Your task to perform on an android device: open the mobile data screen to see how much data has been used Image 0: 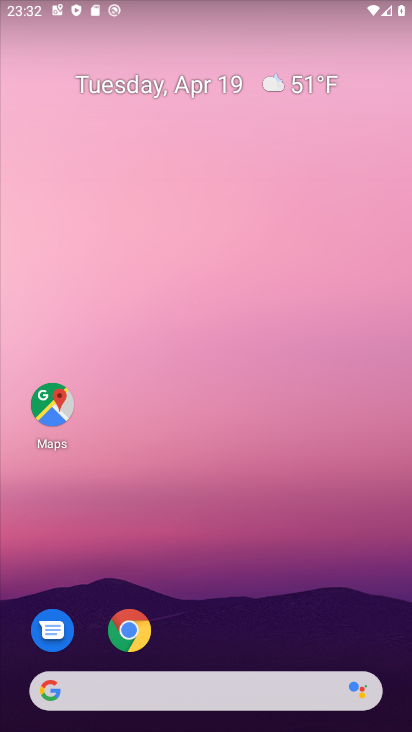
Step 0: drag from (340, 542) to (281, 304)
Your task to perform on an android device: open the mobile data screen to see how much data has been used Image 1: 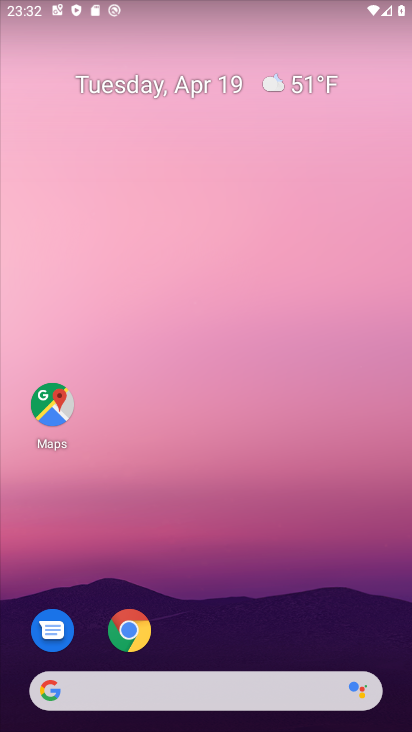
Step 1: drag from (247, 573) to (175, 176)
Your task to perform on an android device: open the mobile data screen to see how much data has been used Image 2: 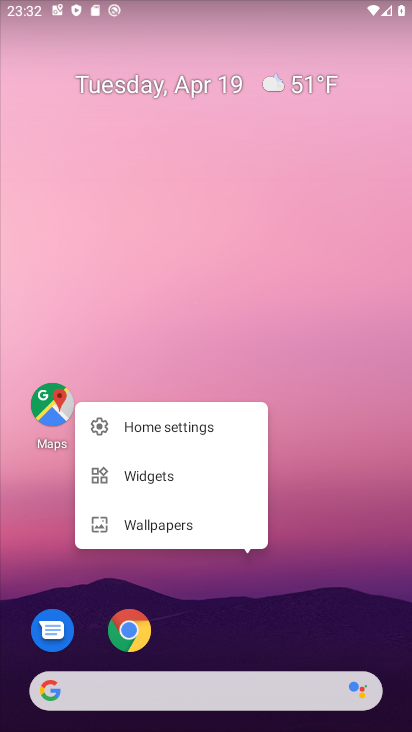
Step 2: drag from (349, 623) to (246, 167)
Your task to perform on an android device: open the mobile data screen to see how much data has been used Image 3: 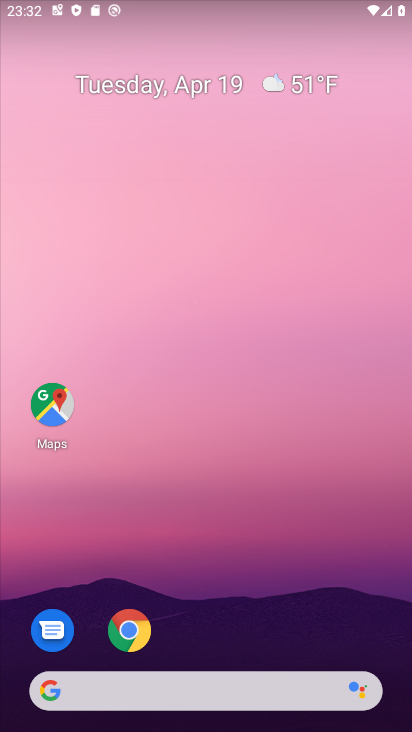
Step 3: drag from (237, 619) to (198, 206)
Your task to perform on an android device: open the mobile data screen to see how much data has been used Image 4: 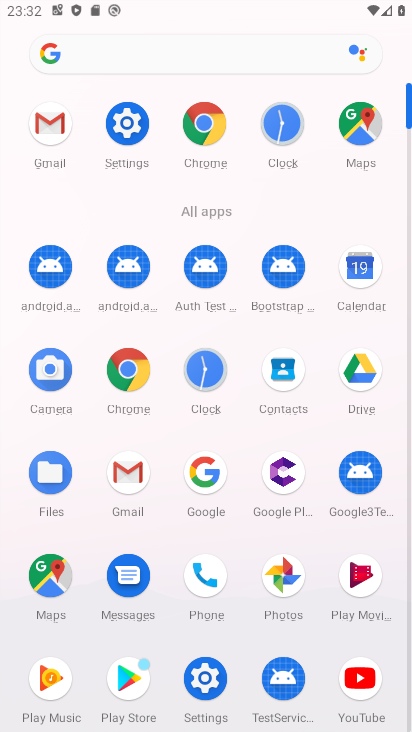
Step 4: click (128, 129)
Your task to perform on an android device: open the mobile data screen to see how much data has been used Image 5: 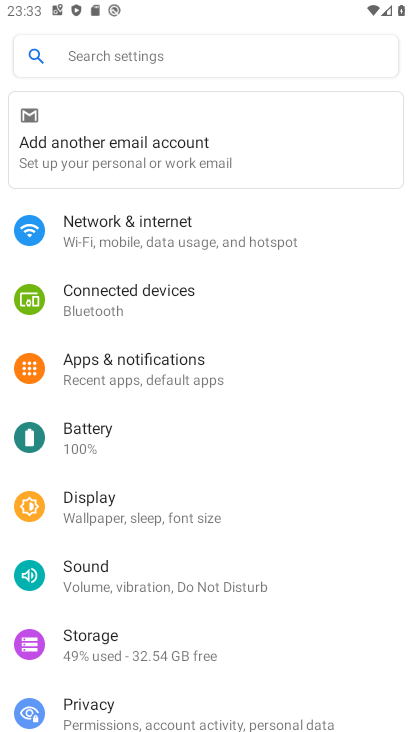
Step 5: click (236, 238)
Your task to perform on an android device: open the mobile data screen to see how much data has been used Image 6: 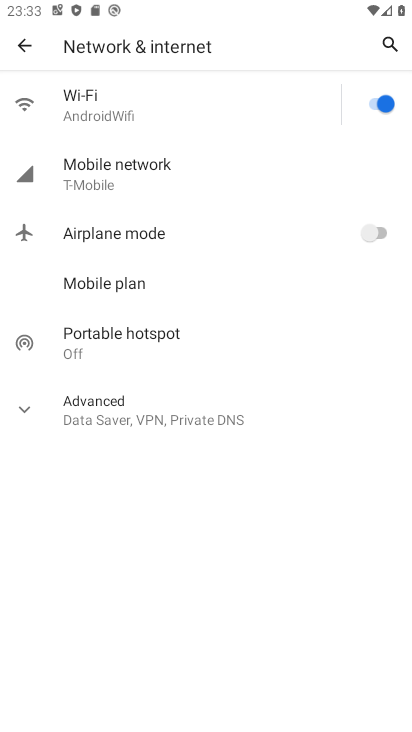
Step 6: click (214, 159)
Your task to perform on an android device: open the mobile data screen to see how much data has been used Image 7: 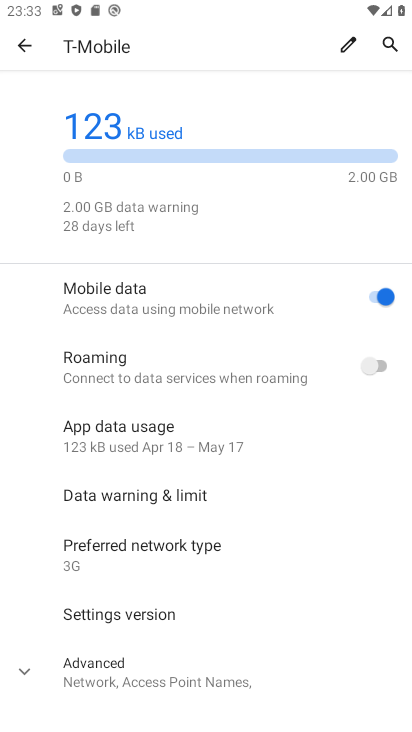
Step 7: task complete